Your task to perform on an android device: clear history in the chrome app Image 0: 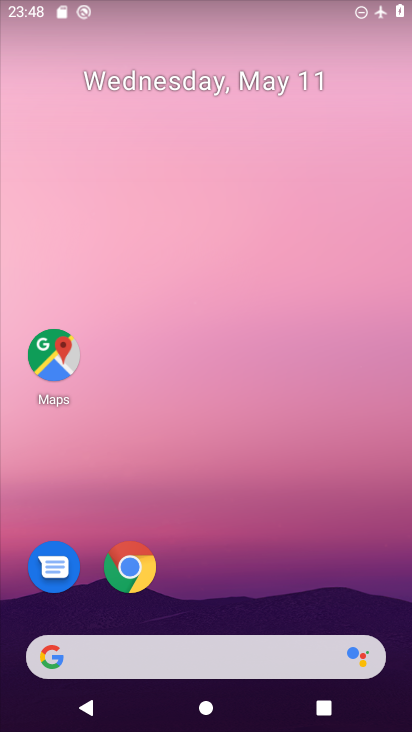
Step 0: click (143, 576)
Your task to perform on an android device: clear history in the chrome app Image 1: 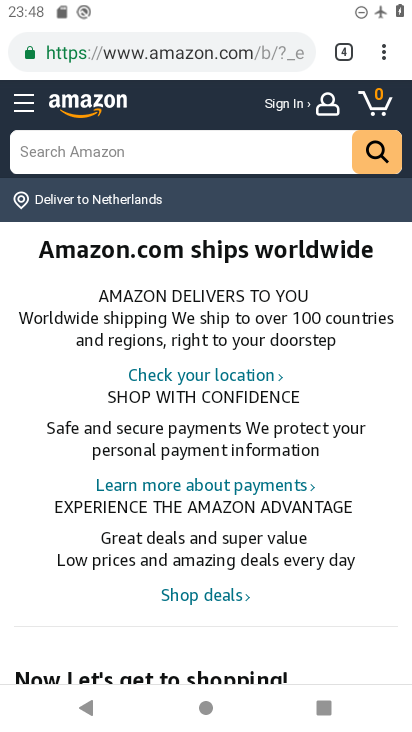
Step 1: click (384, 48)
Your task to perform on an android device: clear history in the chrome app Image 2: 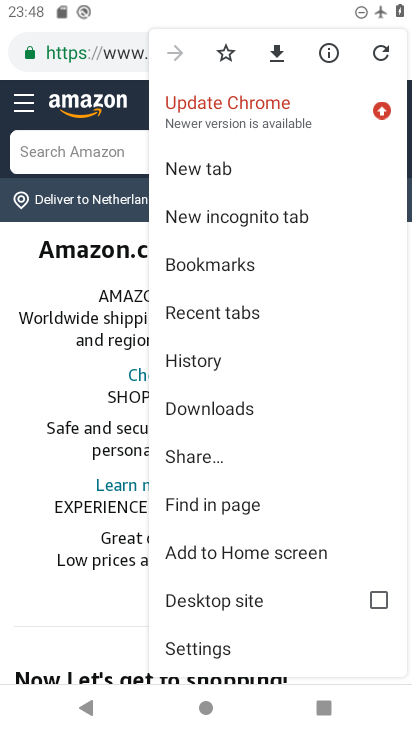
Step 2: click (197, 368)
Your task to perform on an android device: clear history in the chrome app Image 3: 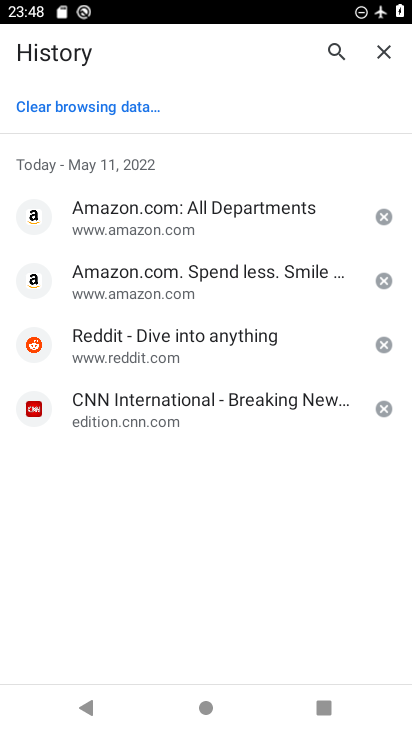
Step 3: click (135, 103)
Your task to perform on an android device: clear history in the chrome app Image 4: 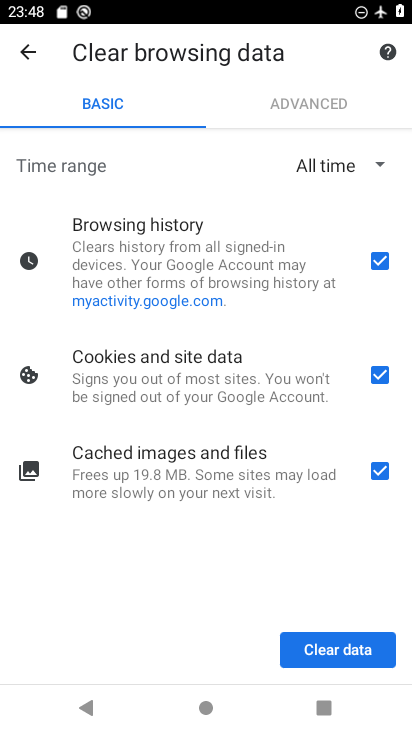
Step 4: click (328, 657)
Your task to perform on an android device: clear history in the chrome app Image 5: 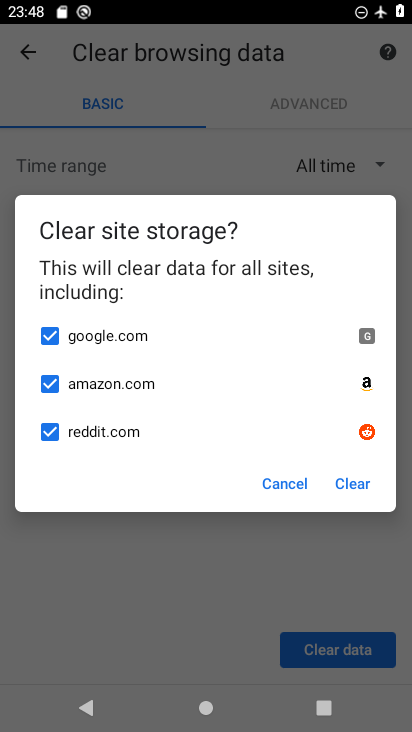
Step 5: click (367, 478)
Your task to perform on an android device: clear history in the chrome app Image 6: 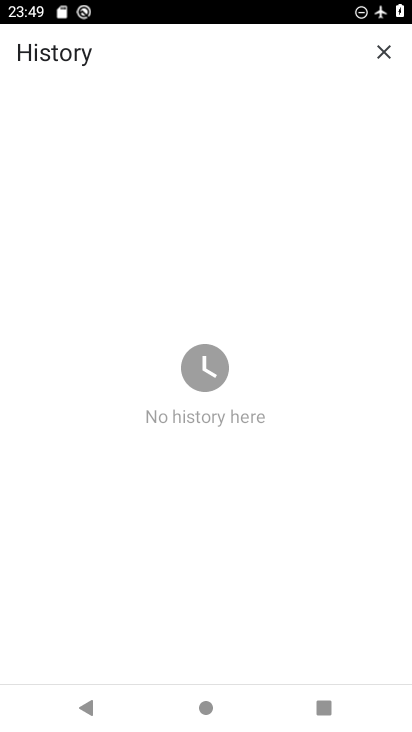
Step 6: task complete